Your task to perform on an android device: Go to Yahoo.com Image 0: 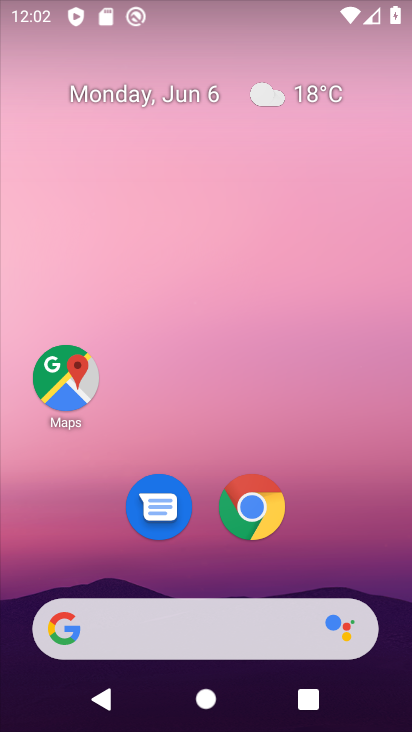
Step 0: click (257, 528)
Your task to perform on an android device: Go to Yahoo.com Image 1: 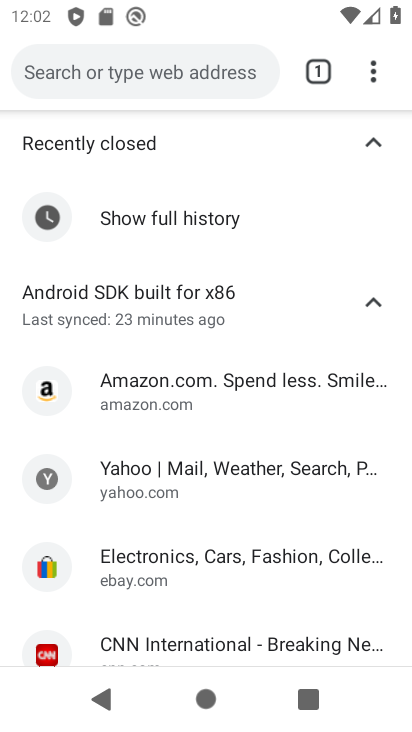
Step 1: click (187, 72)
Your task to perform on an android device: Go to Yahoo.com Image 2: 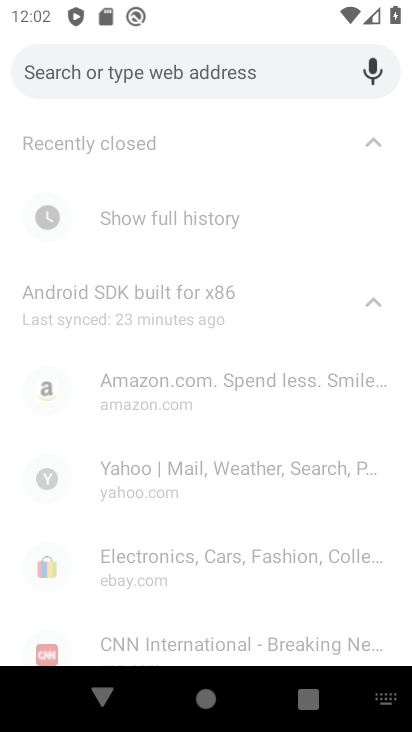
Step 2: type "yahoo.com"
Your task to perform on an android device: Go to Yahoo.com Image 3: 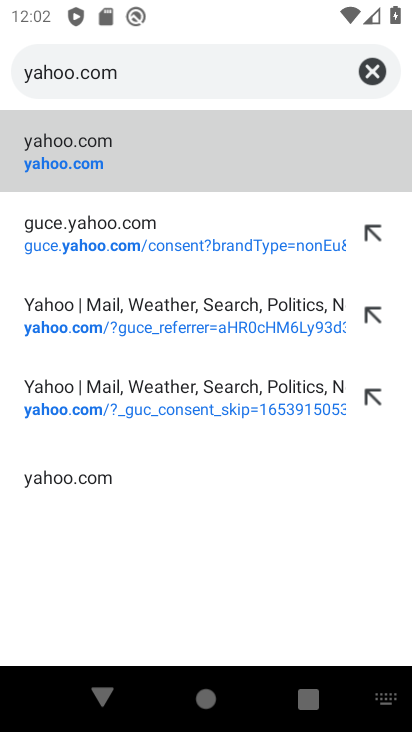
Step 3: click (187, 169)
Your task to perform on an android device: Go to Yahoo.com Image 4: 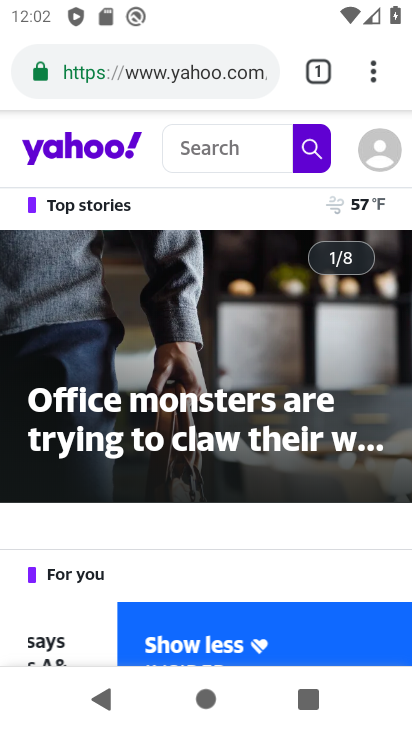
Step 4: task complete